Your task to perform on an android device: open a bookmark in the chrome app Image 0: 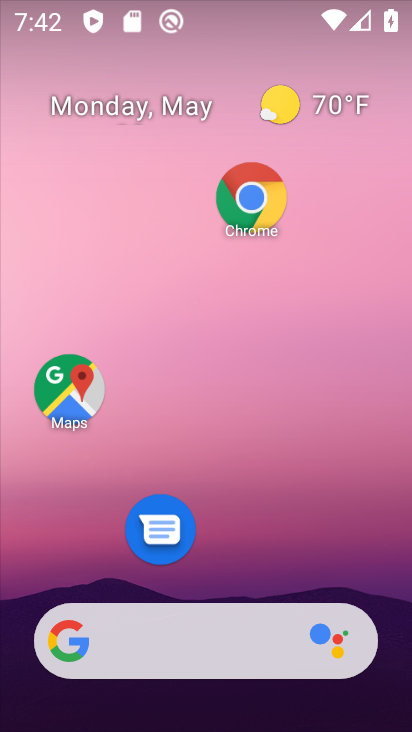
Step 0: click (232, 193)
Your task to perform on an android device: open a bookmark in the chrome app Image 1: 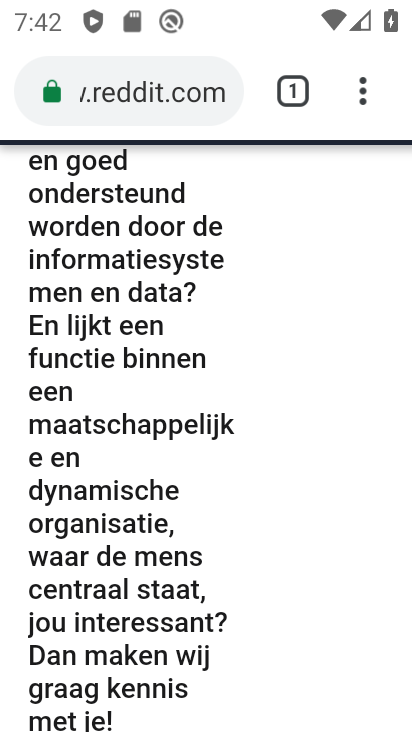
Step 1: click (362, 88)
Your task to perform on an android device: open a bookmark in the chrome app Image 2: 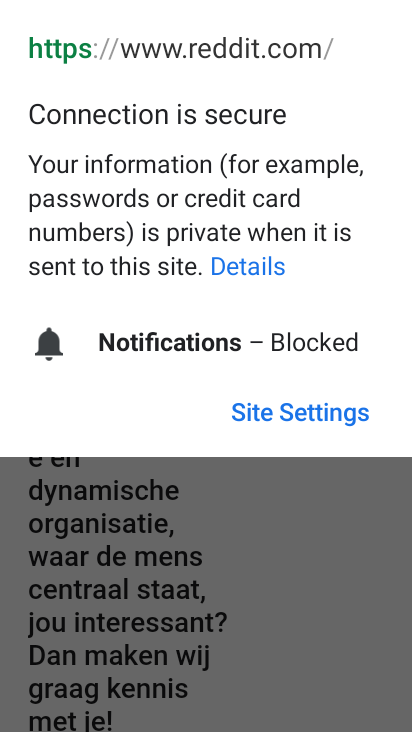
Step 2: click (246, 517)
Your task to perform on an android device: open a bookmark in the chrome app Image 3: 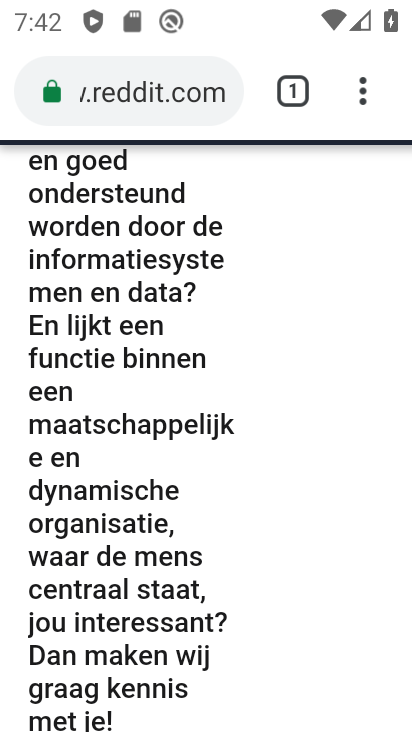
Step 3: click (363, 88)
Your task to perform on an android device: open a bookmark in the chrome app Image 4: 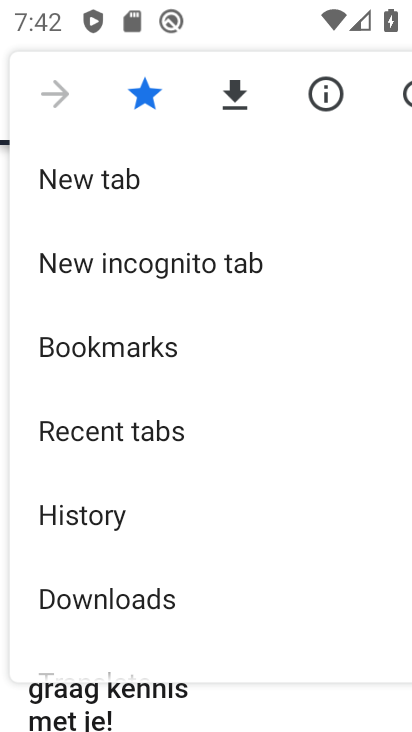
Step 4: click (176, 344)
Your task to perform on an android device: open a bookmark in the chrome app Image 5: 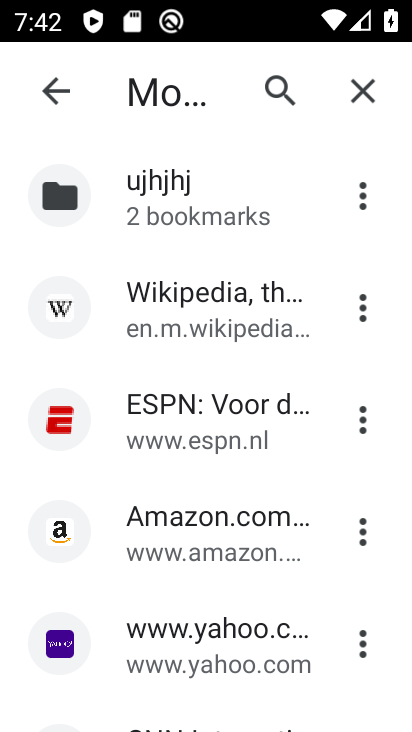
Step 5: click (184, 526)
Your task to perform on an android device: open a bookmark in the chrome app Image 6: 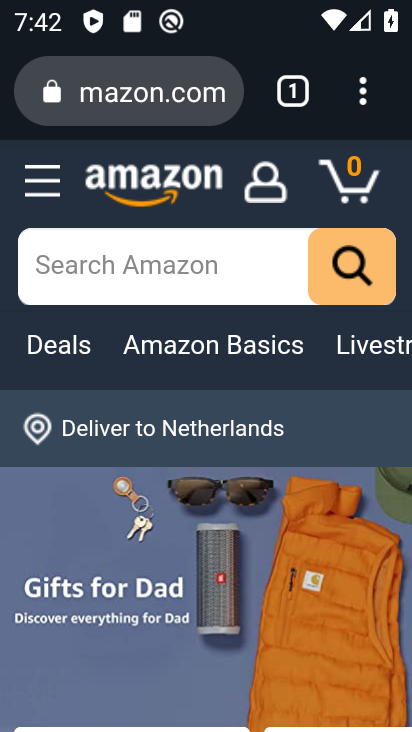
Step 6: task complete